Your task to perform on an android device: change the clock style Image 0: 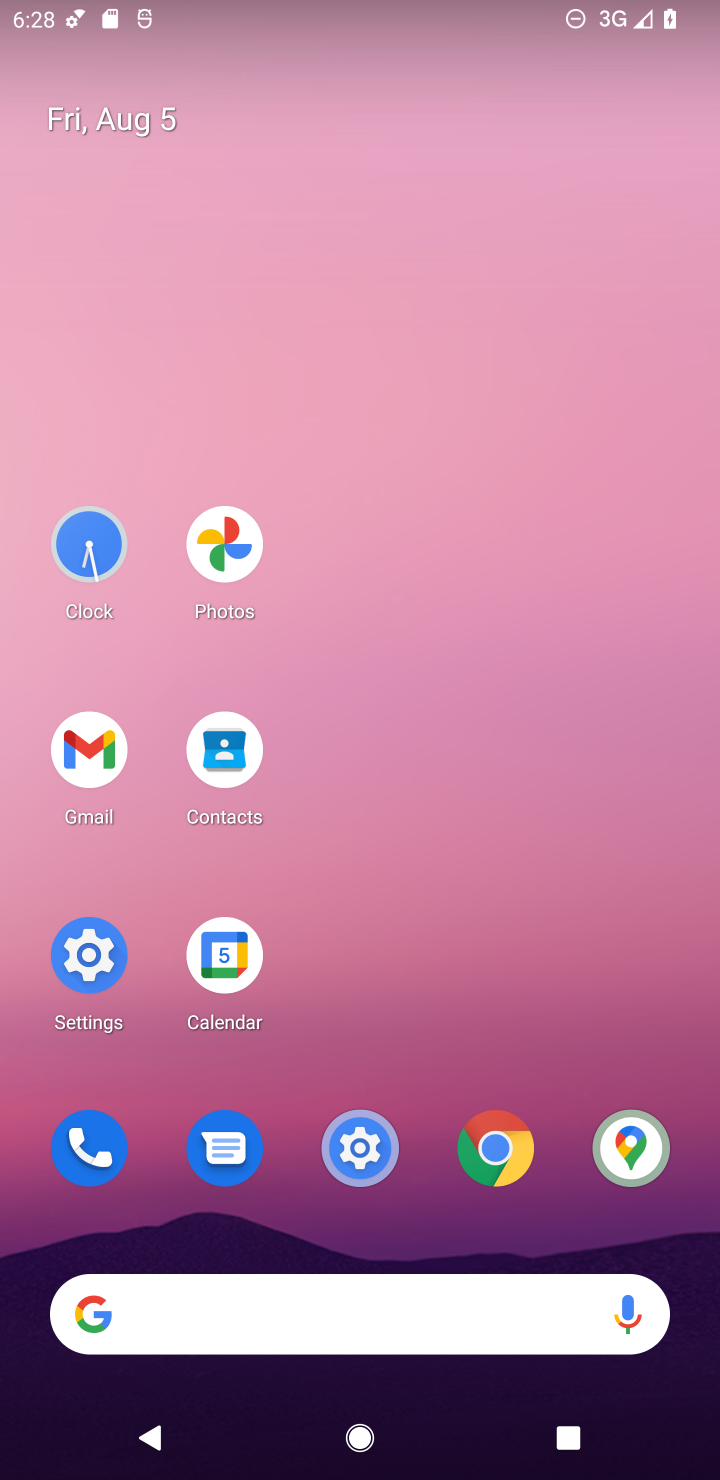
Step 0: click (83, 521)
Your task to perform on an android device: change the clock style Image 1: 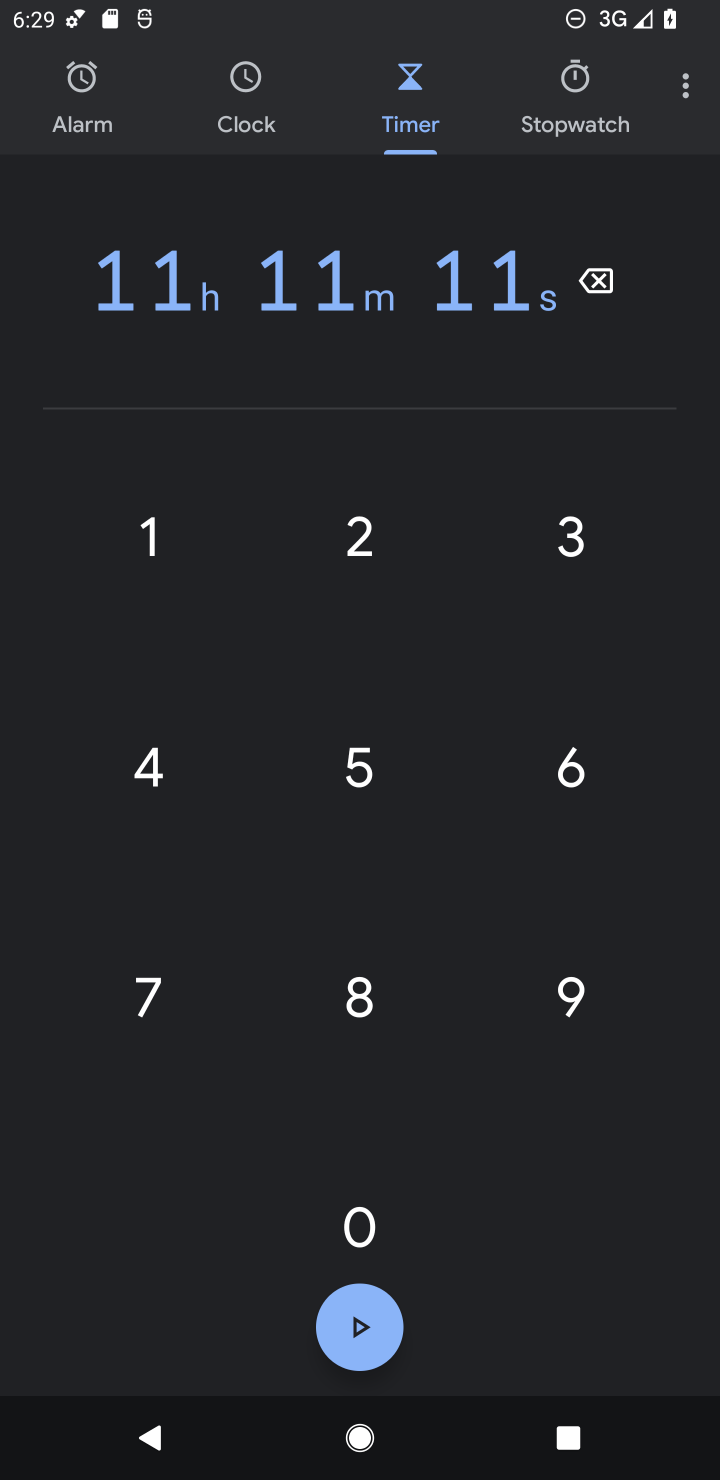
Step 1: click (674, 96)
Your task to perform on an android device: change the clock style Image 2: 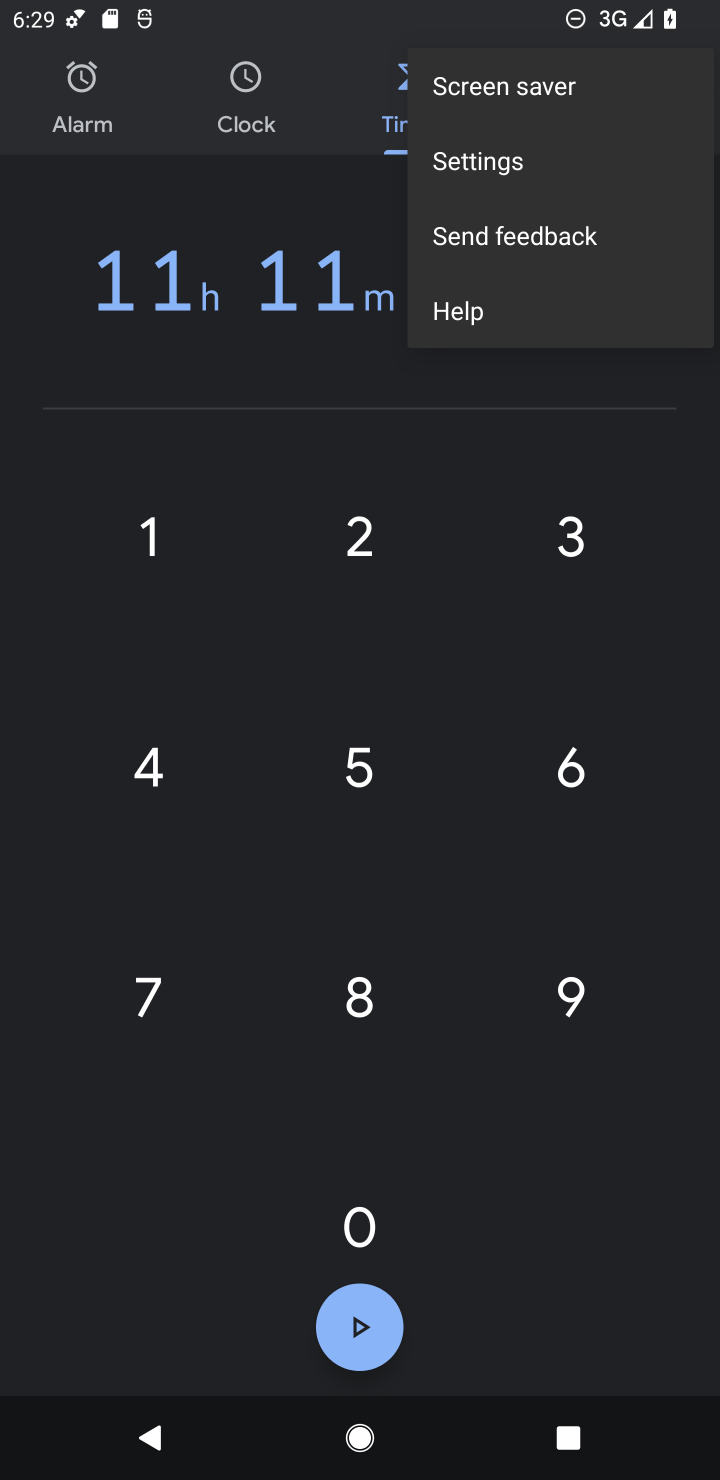
Step 2: click (484, 172)
Your task to perform on an android device: change the clock style Image 3: 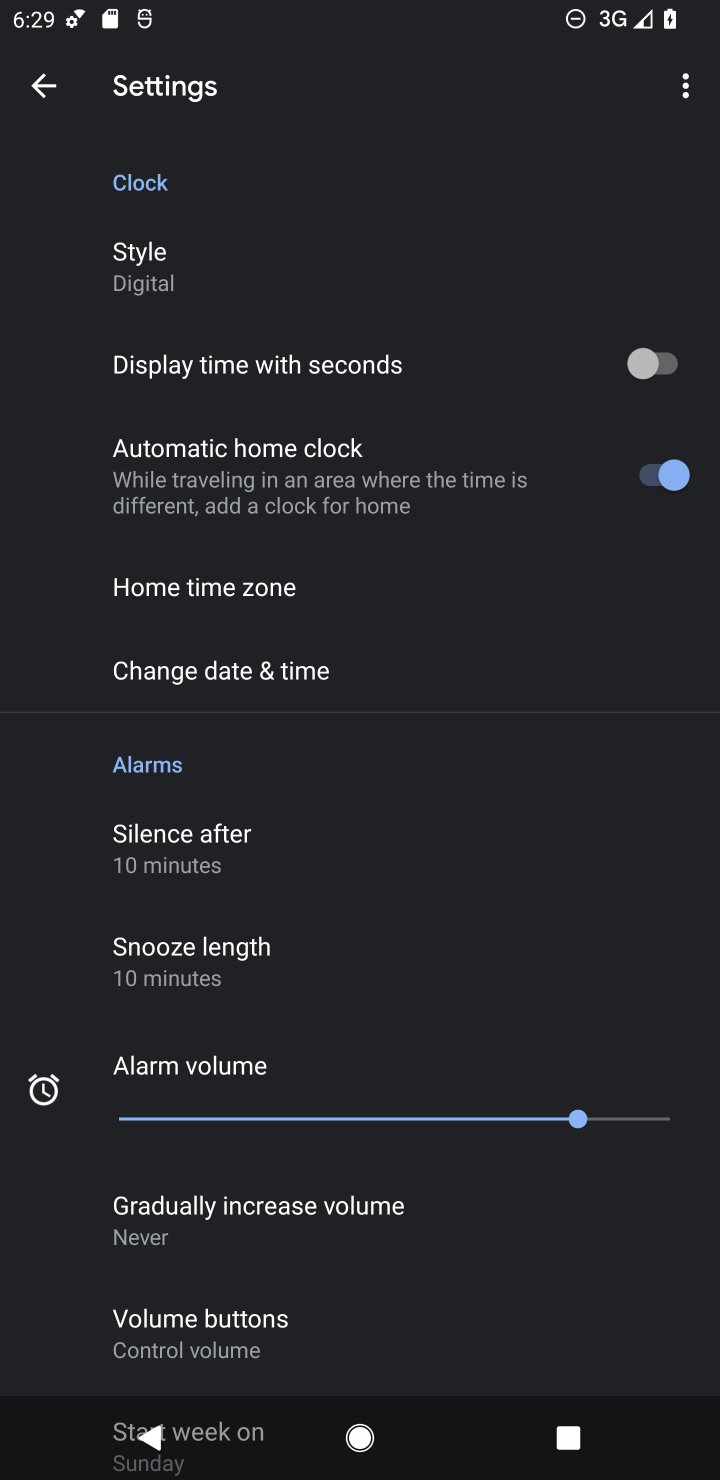
Step 3: click (125, 261)
Your task to perform on an android device: change the clock style Image 4: 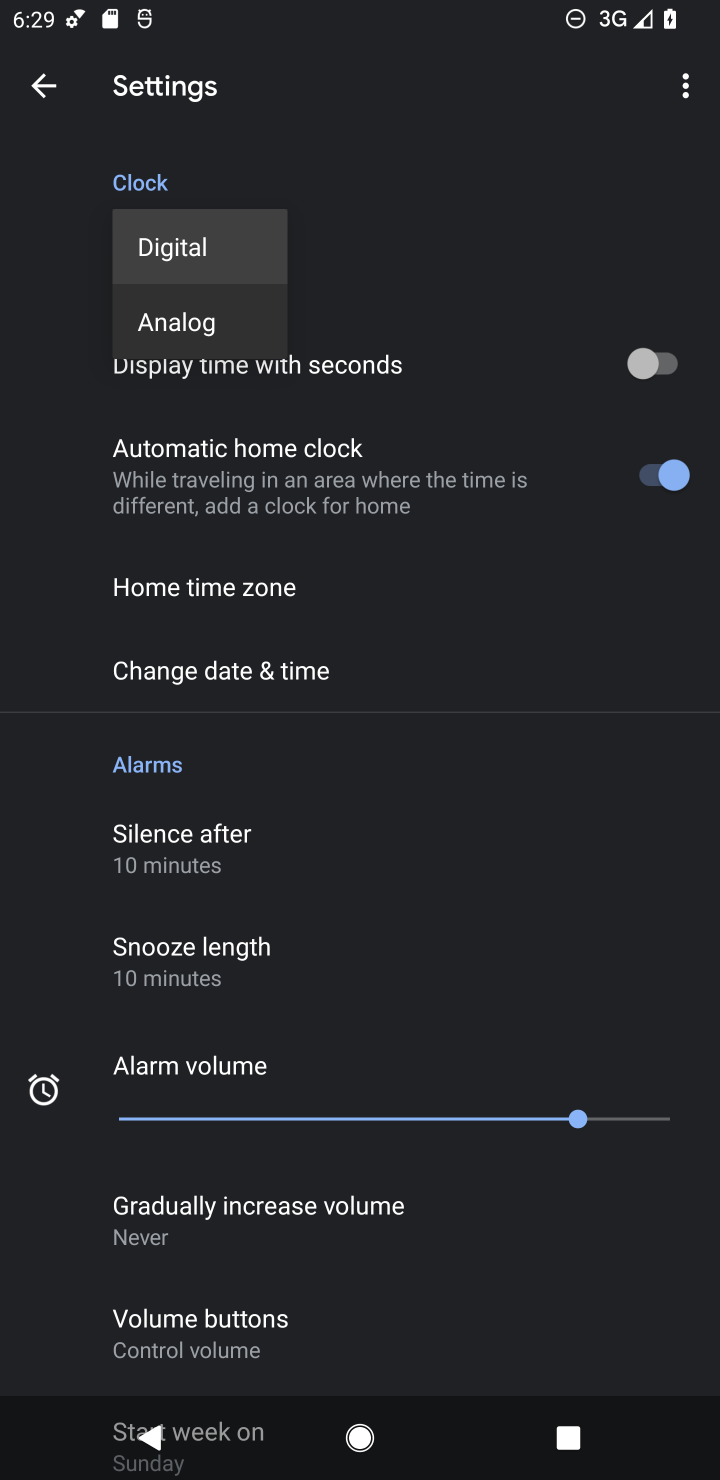
Step 4: click (157, 337)
Your task to perform on an android device: change the clock style Image 5: 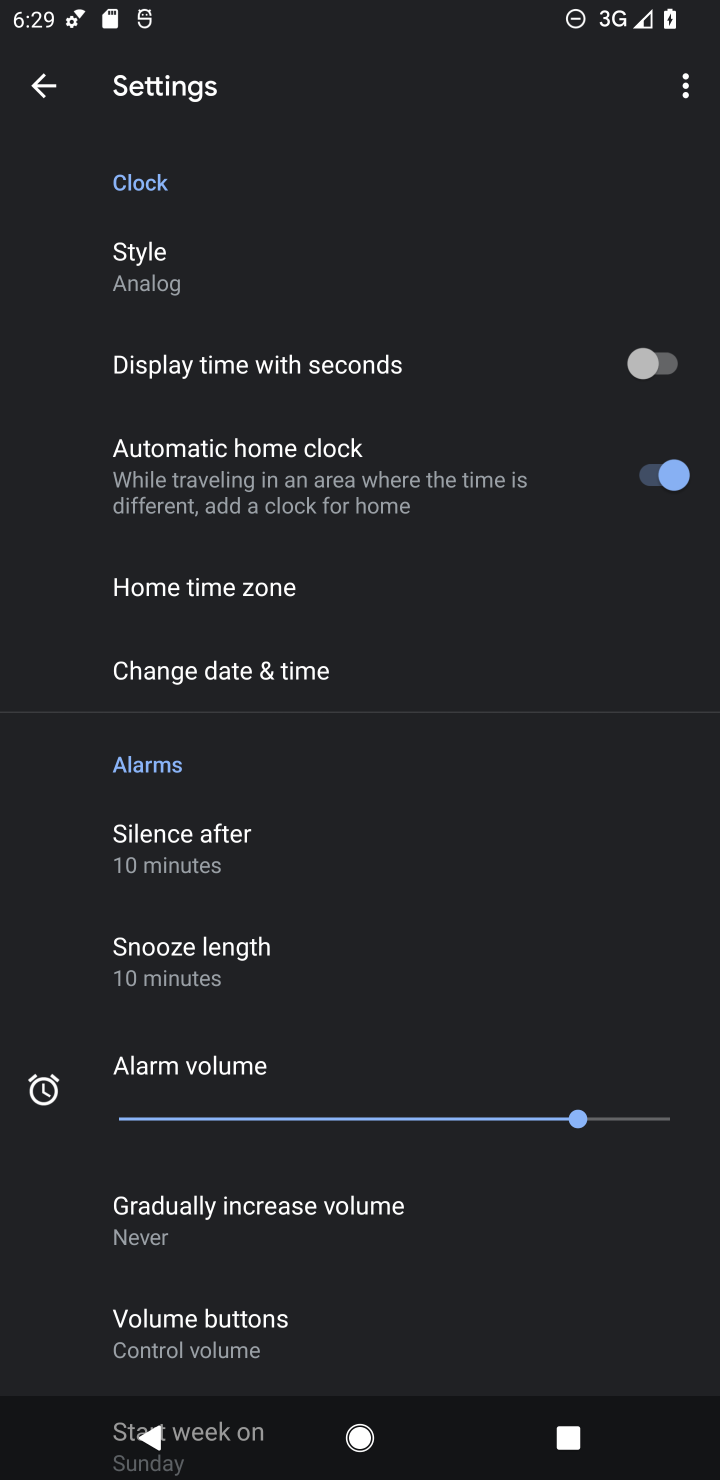
Step 5: task complete